Your task to perform on an android device: allow notifications from all sites in the chrome app Image 0: 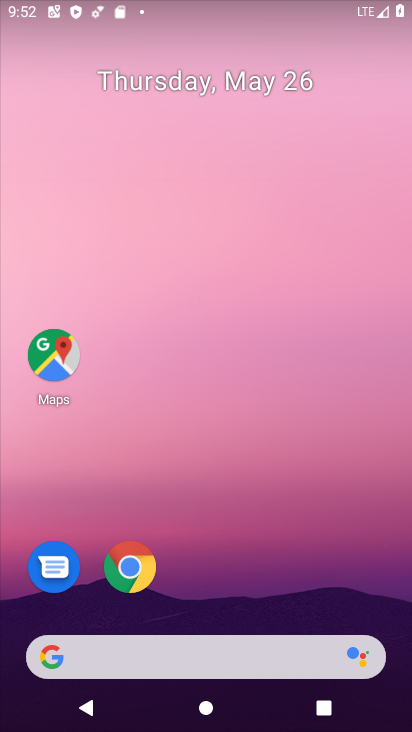
Step 0: click (133, 561)
Your task to perform on an android device: allow notifications from all sites in the chrome app Image 1: 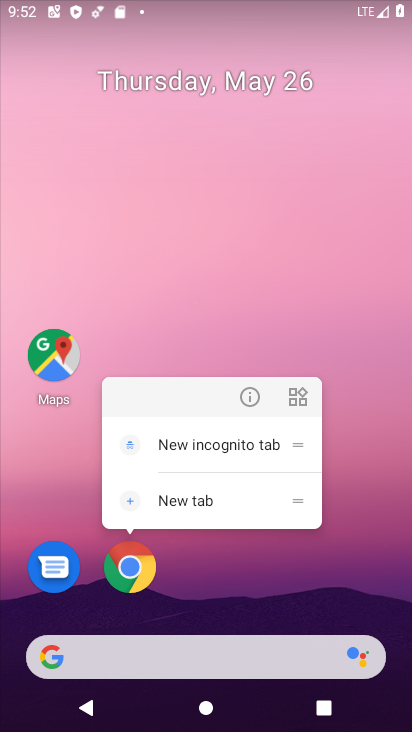
Step 1: click (134, 556)
Your task to perform on an android device: allow notifications from all sites in the chrome app Image 2: 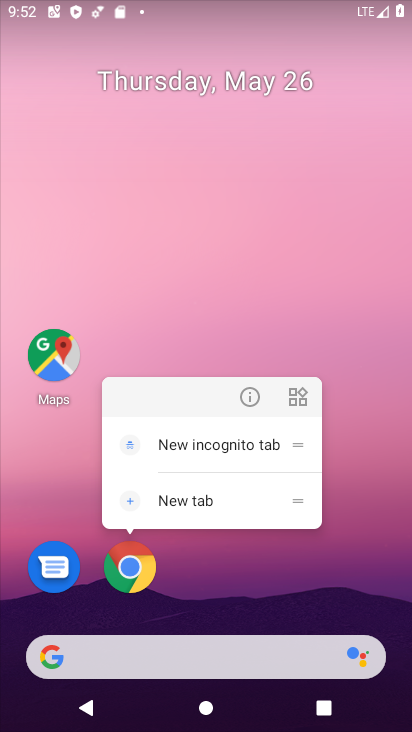
Step 2: click (134, 556)
Your task to perform on an android device: allow notifications from all sites in the chrome app Image 3: 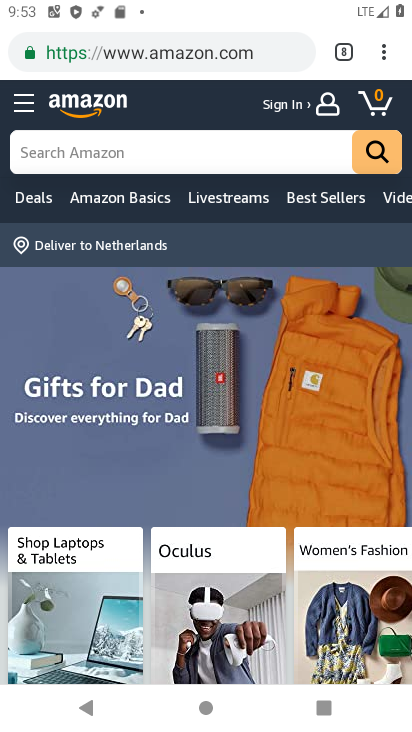
Step 3: click (384, 48)
Your task to perform on an android device: allow notifications from all sites in the chrome app Image 4: 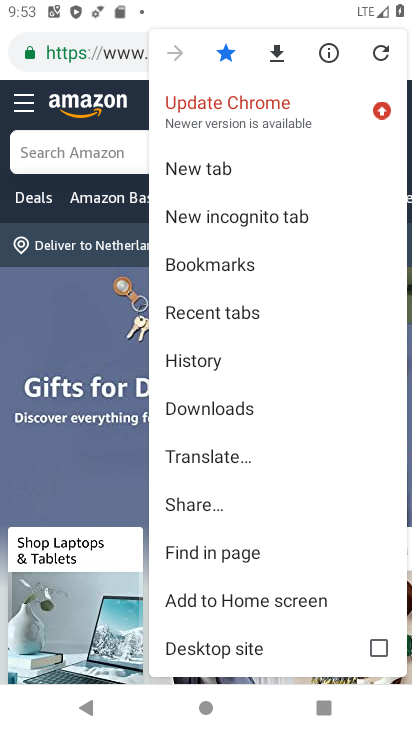
Step 4: drag from (245, 583) to (297, 138)
Your task to perform on an android device: allow notifications from all sites in the chrome app Image 5: 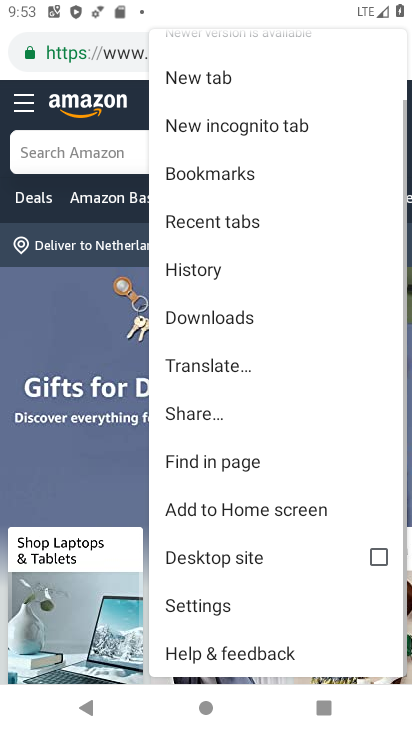
Step 5: click (216, 606)
Your task to perform on an android device: allow notifications from all sites in the chrome app Image 6: 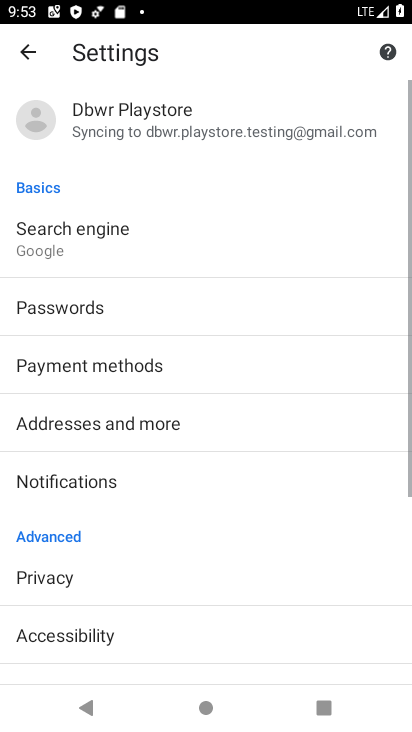
Step 6: click (73, 491)
Your task to perform on an android device: allow notifications from all sites in the chrome app Image 7: 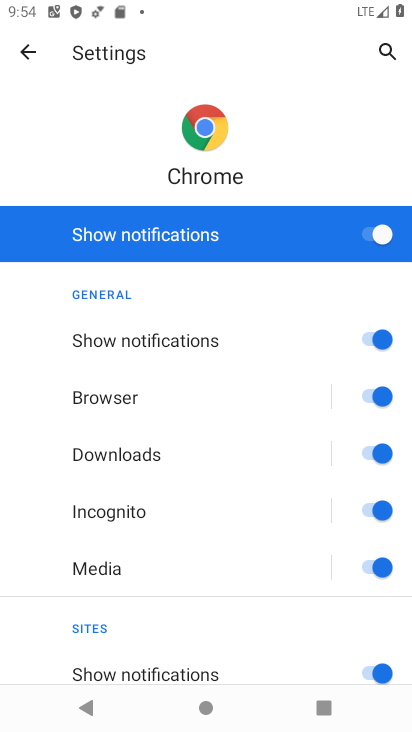
Step 7: task complete